Your task to perform on an android device: Show me popular videos on Youtube Image 0: 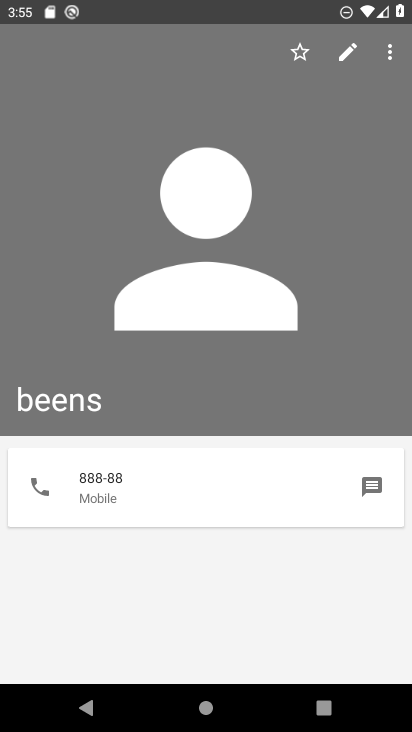
Step 0: press home button
Your task to perform on an android device: Show me popular videos on Youtube Image 1: 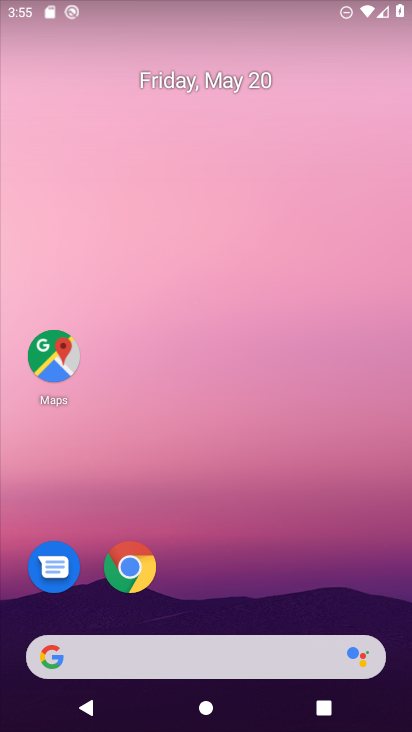
Step 1: click (224, 192)
Your task to perform on an android device: Show me popular videos on Youtube Image 2: 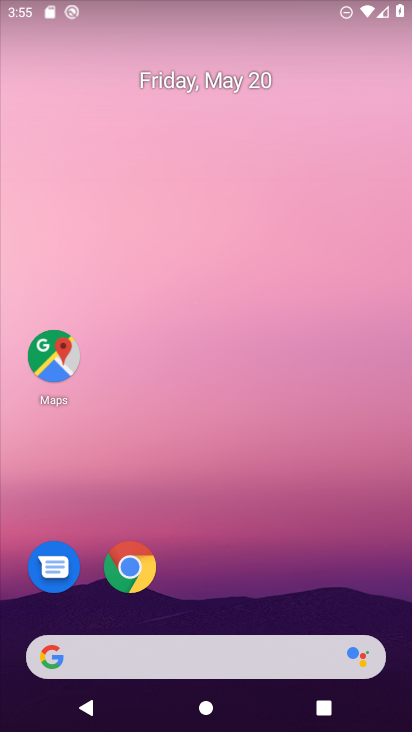
Step 2: drag from (228, 724) to (235, 164)
Your task to perform on an android device: Show me popular videos on Youtube Image 3: 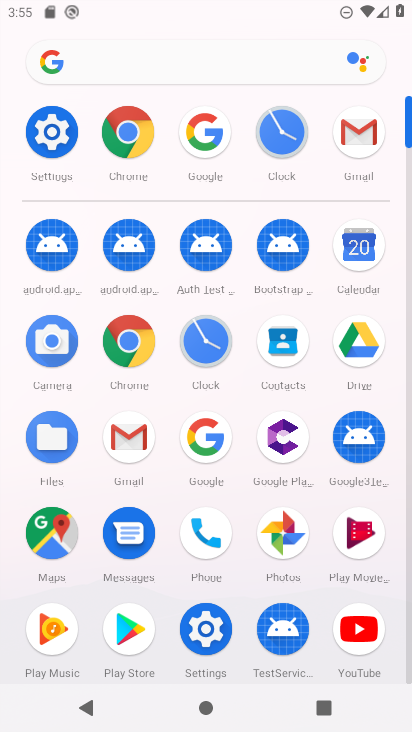
Step 3: drag from (233, 667) to (241, 281)
Your task to perform on an android device: Show me popular videos on Youtube Image 4: 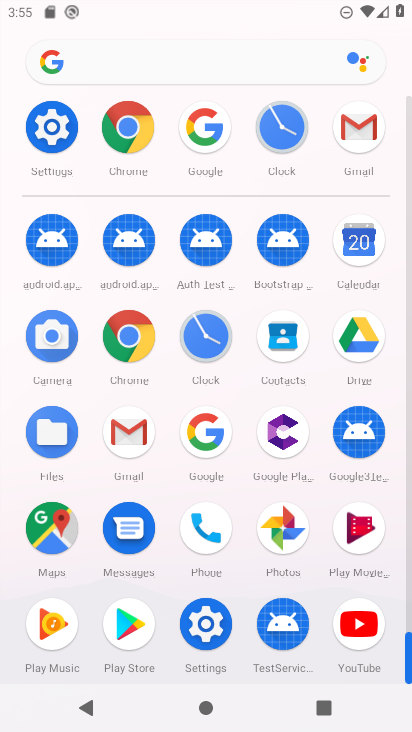
Step 4: click (353, 626)
Your task to perform on an android device: Show me popular videos on Youtube Image 5: 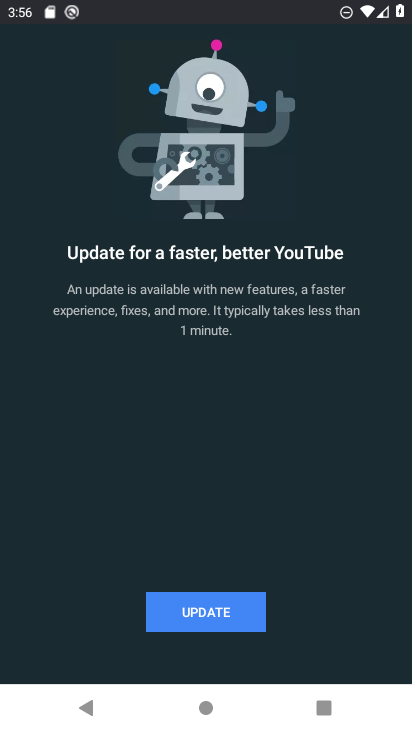
Step 5: click (201, 610)
Your task to perform on an android device: Show me popular videos on Youtube Image 6: 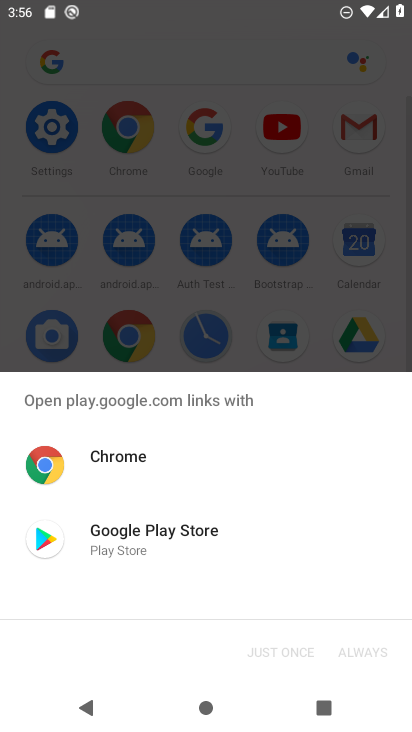
Step 6: click (121, 550)
Your task to perform on an android device: Show me popular videos on Youtube Image 7: 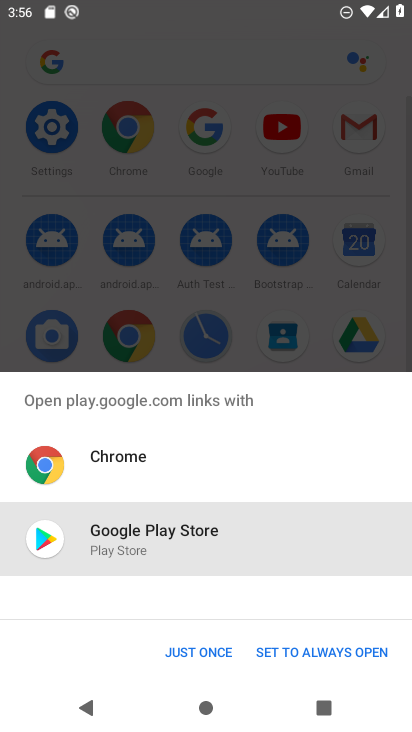
Step 7: click (203, 644)
Your task to perform on an android device: Show me popular videos on Youtube Image 8: 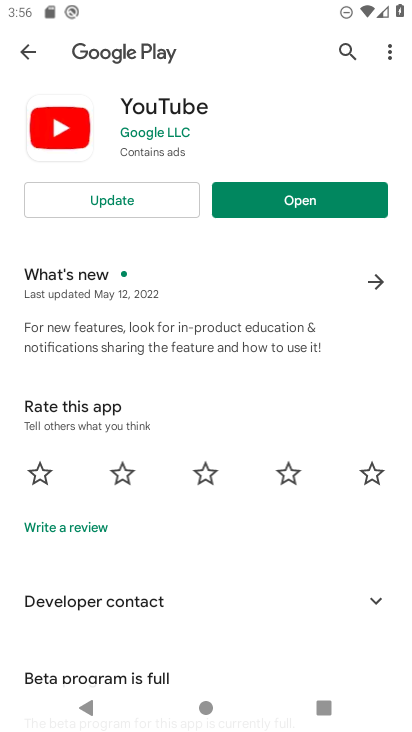
Step 8: click (314, 205)
Your task to perform on an android device: Show me popular videos on Youtube Image 9: 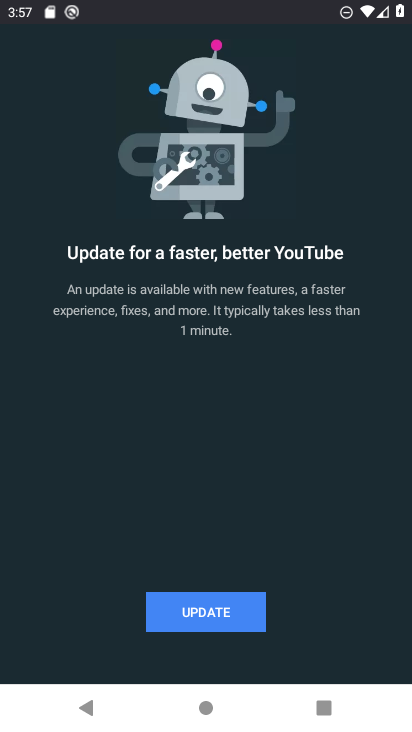
Step 9: task complete